Your task to perform on an android device: clear history in the chrome app Image 0: 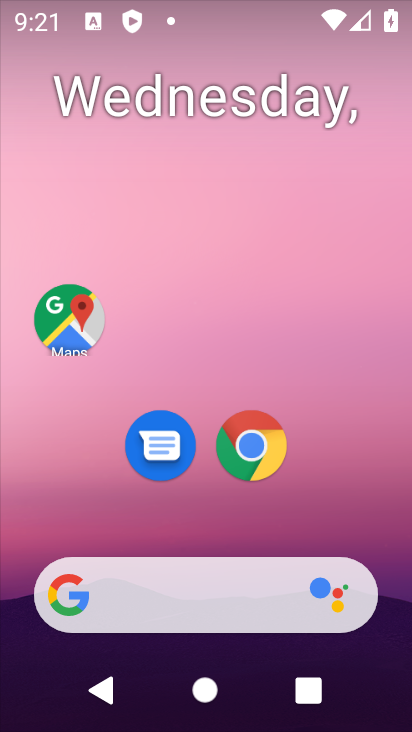
Step 0: drag from (343, 465) to (388, 1)
Your task to perform on an android device: clear history in the chrome app Image 1: 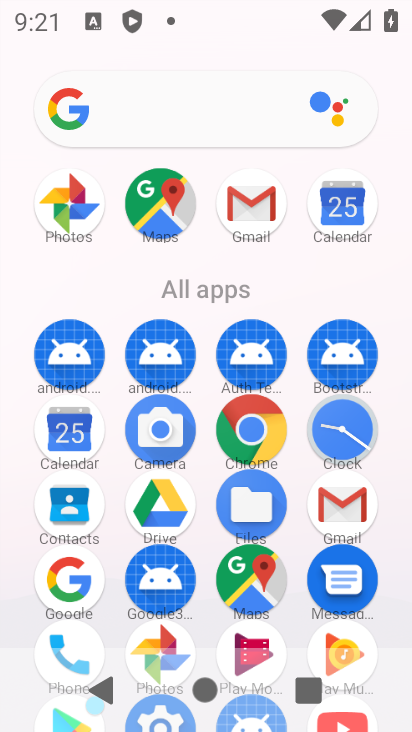
Step 1: click (269, 432)
Your task to perform on an android device: clear history in the chrome app Image 2: 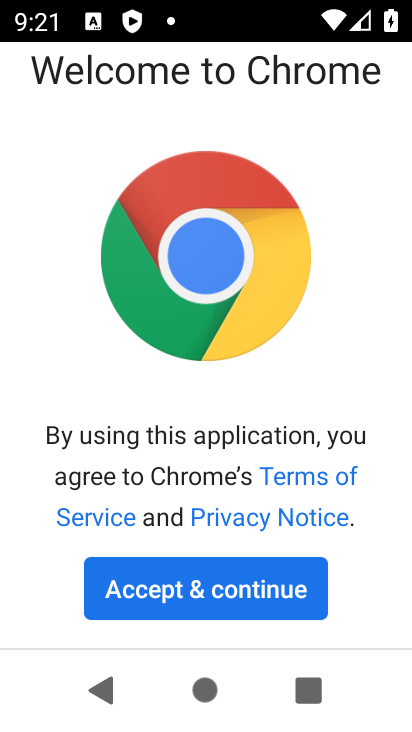
Step 2: click (262, 576)
Your task to perform on an android device: clear history in the chrome app Image 3: 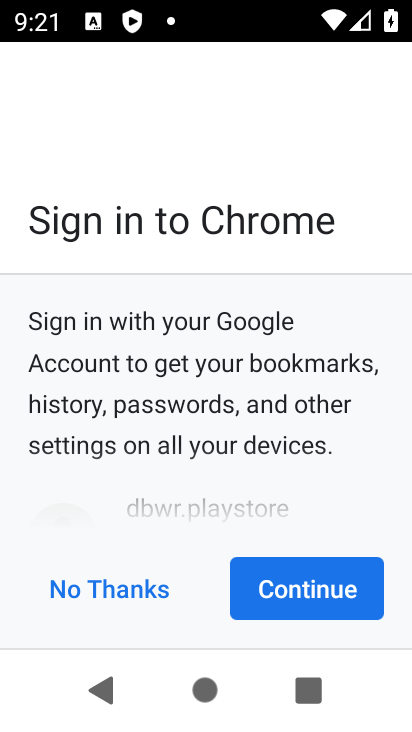
Step 3: click (129, 569)
Your task to perform on an android device: clear history in the chrome app Image 4: 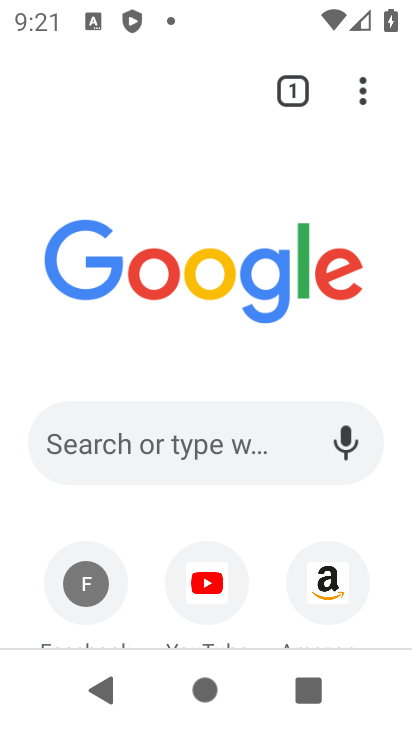
Step 4: task complete